Your task to perform on an android device: turn off translation in the chrome app Image 0: 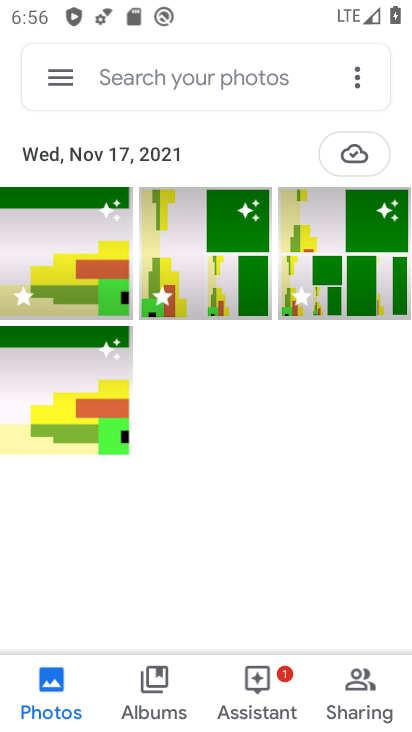
Step 0: press home button
Your task to perform on an android device: turn off translation in the chrome app Image 1: 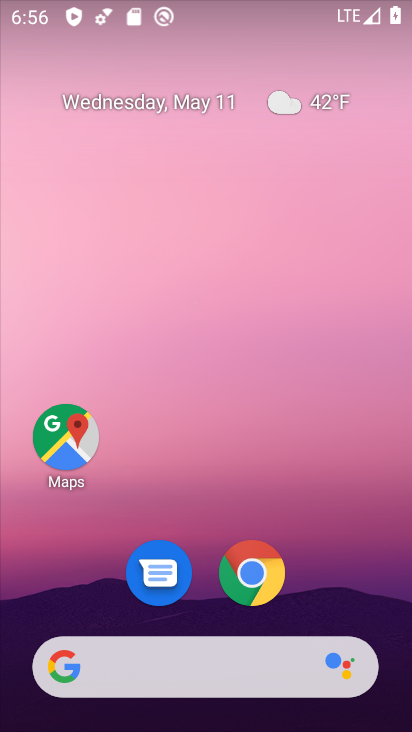
Step 1: click (269, 595)
Your task to perform on an android device: turn off translation in the chrome app Image 2: 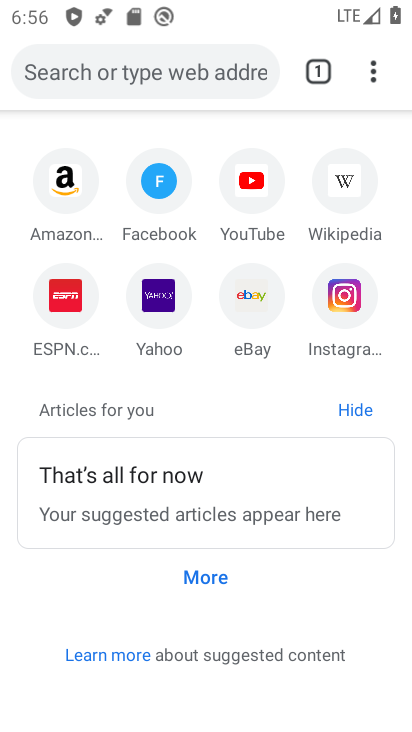
Step 2: click (373, 66)
Your task to perform on an android device: turn off translation in the chrome app Image 3: 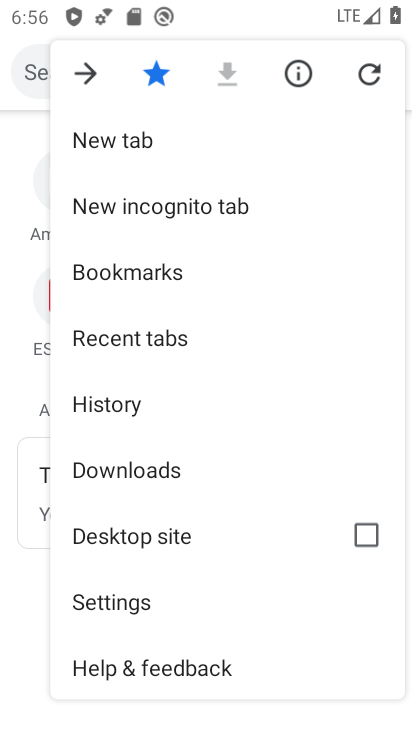
Step 3: click (115, 607)
Your task to perform on an android device: turn off translation in the chrome app Image 4: 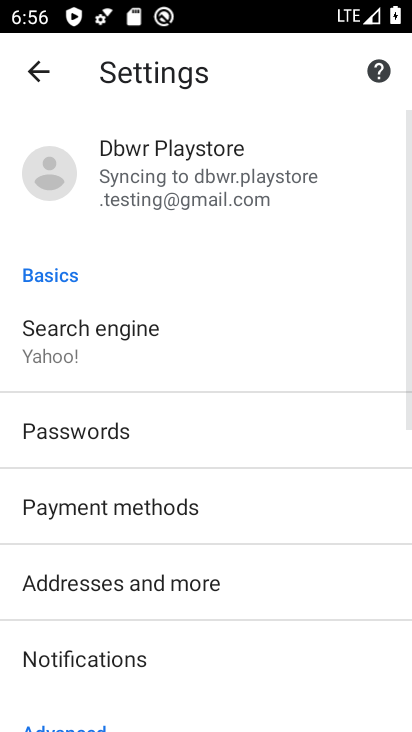
Step 4: drag from (143, 664) to (179, 357)
Your task to perform on an android device: turn off translation in the chrome app Image 5: 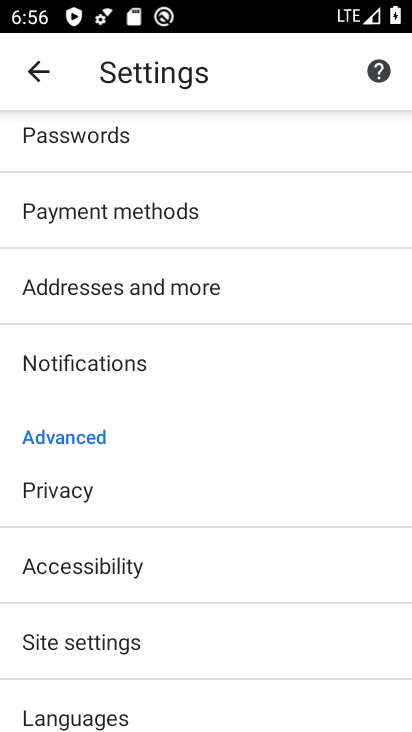
Step 5: click (103, 724)
Your task to perform on an android device: turn off translation in the chrome app Image 6: 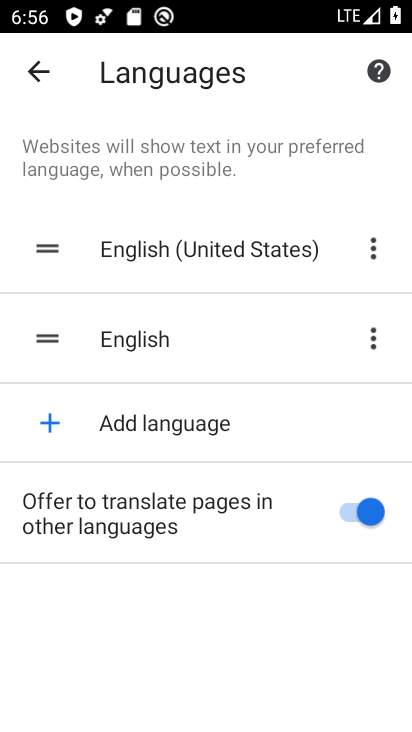
Step 6: click (343, 518)
Your task to perform on an android device: turn off translation in the chrome app Image 7: 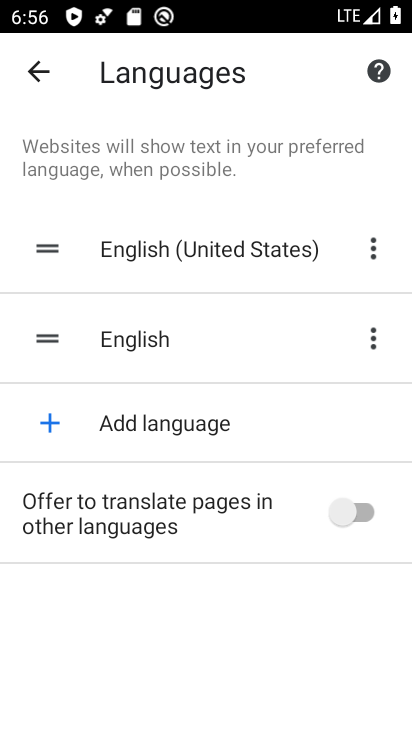
Step 7: task complete